Your task to perform on an android device: Open Yahoo.com Image 0: 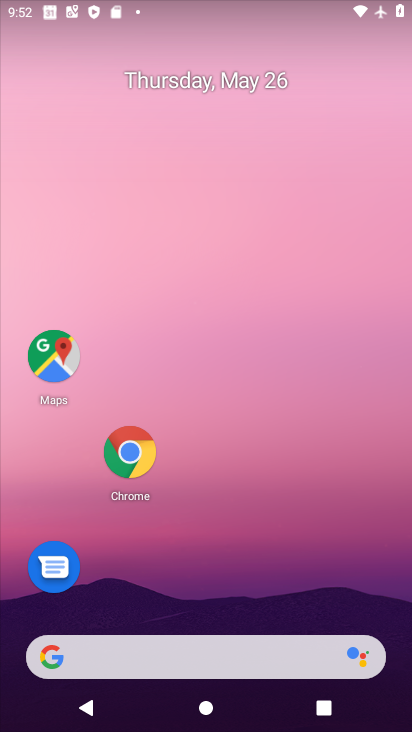
Step 0: click (128, 451)
Your task to perform on an android device: Open Yahoo.com Image 1: 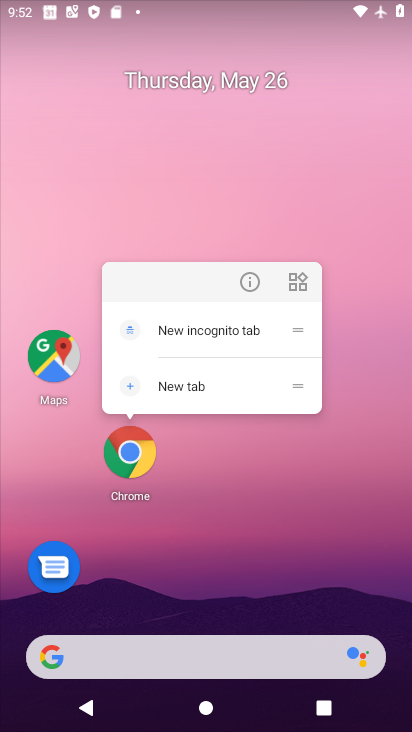
Step 1: click (137, 462)
Your task to perform on an android device: Open Yahoo.com Image 2: 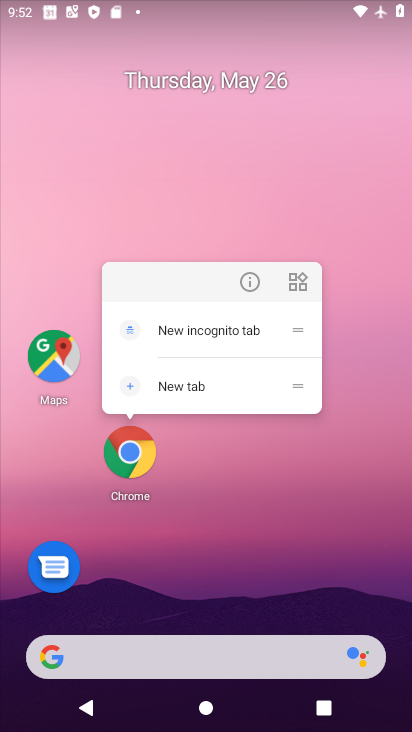
Step 2: click (122, 454)
Your task to perform on an android device: Open Yahoo.com Image 3: 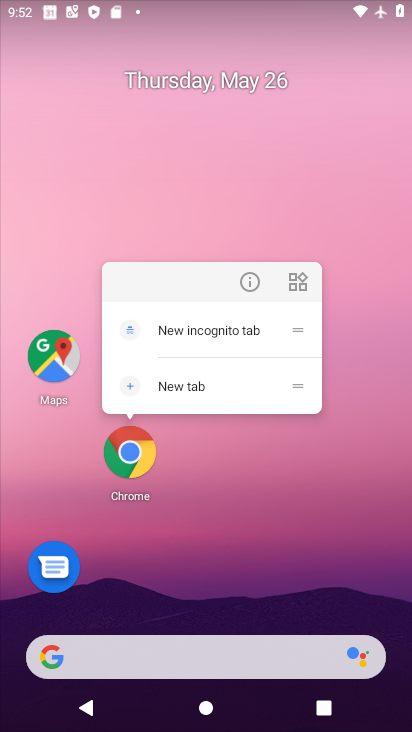
Step 3: click (108, 444)
Your task to perform on an android device: Open Yahoo.com Image 4: 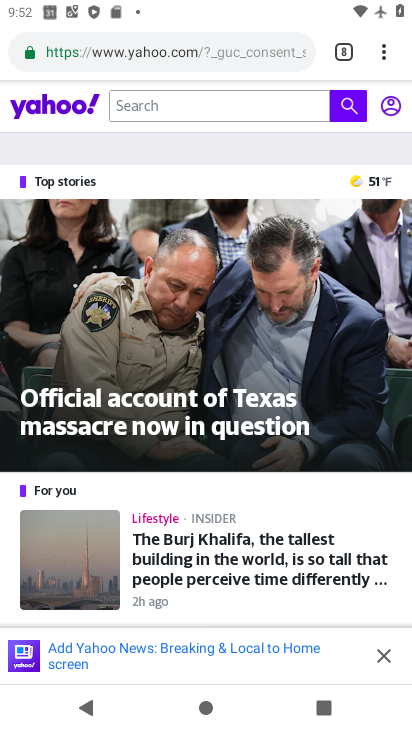
Step 4: task complete